Your task to perform on an android device: delete a single message in the gmail app Image 0: 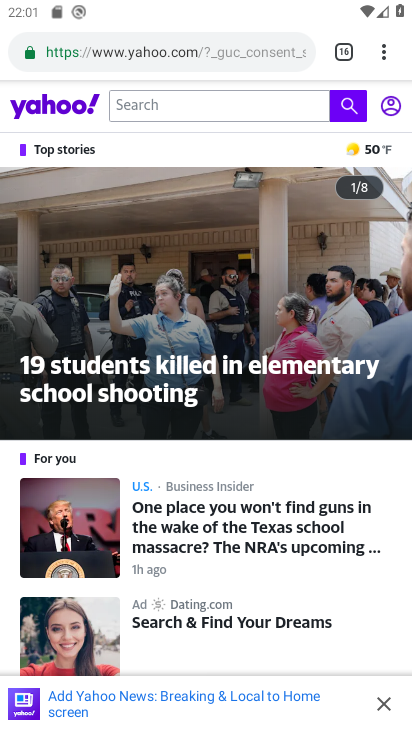
Step 0: press home button
Your task to perform on an android device: delete a single message in the gmail app Image 1: 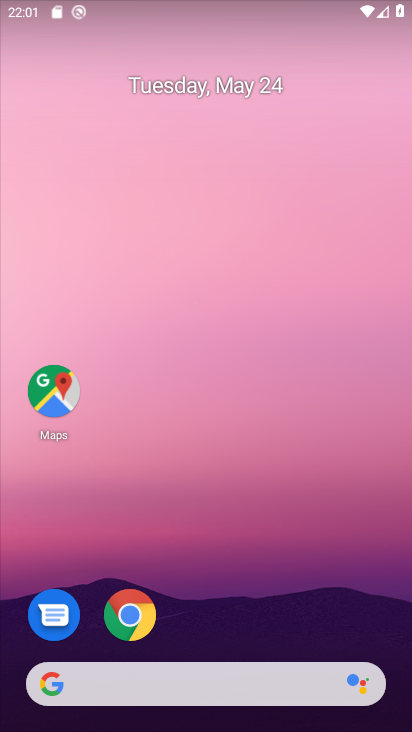
Step 1: drag from (276, 579) to (257, 256)
Your task to perform on an android device: delete a single message in the gmail app Image 2: 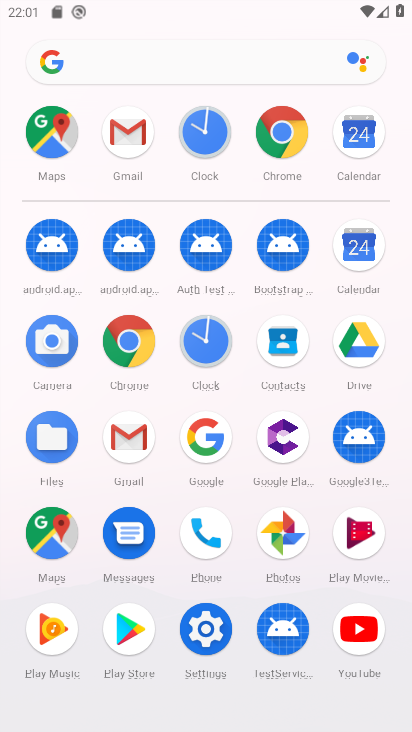
Step 2: click (122, 428)
Your task to perform on an android device: delete a single message in the gmail app Image 3: 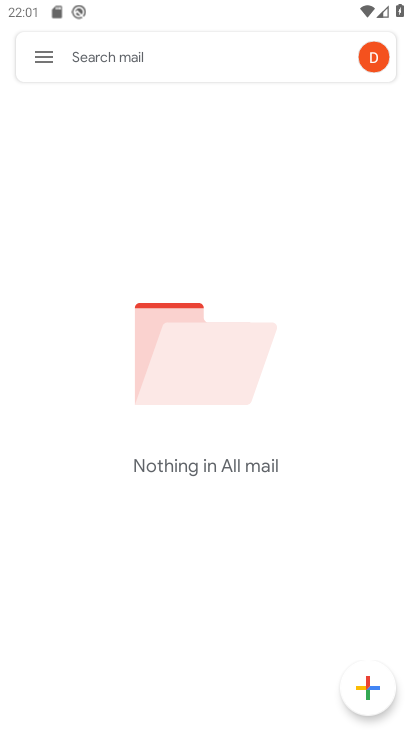
Step 3: click (36, 58)
Your task to perform on an android device: delete a single message in the gmail app Image 4: 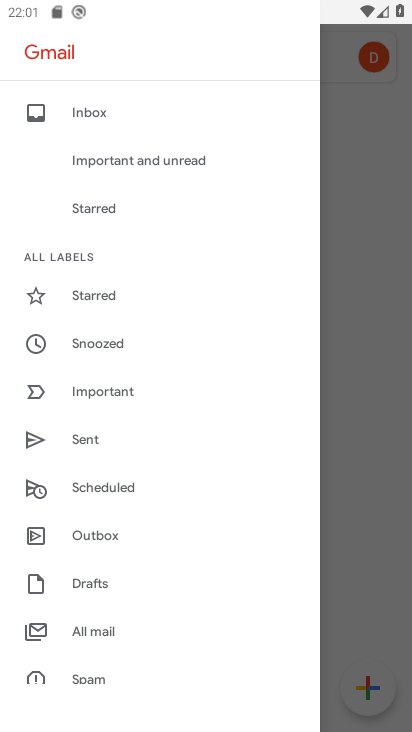
Step 4: click (90, 629)
Your task to perform on an android device: delete a single message in the gmail app Image 5: 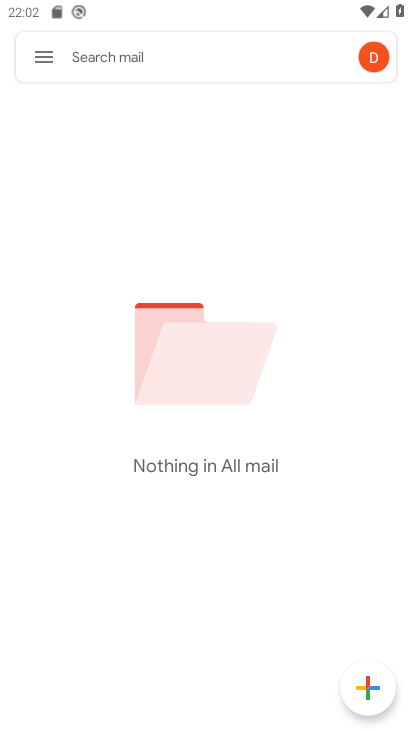
Step 5: click (32, 58)
Your task to perform on an android device: delete a single message in the gmail app Image 6: 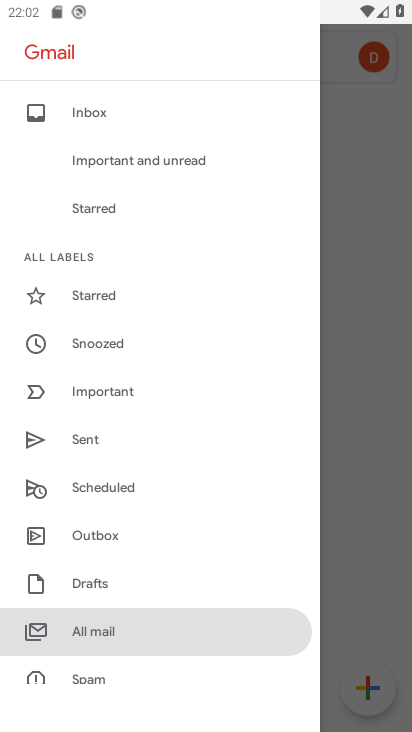
Step 6: task complete